Your task to perform on an android device: open chrome privacy settings Image 0: 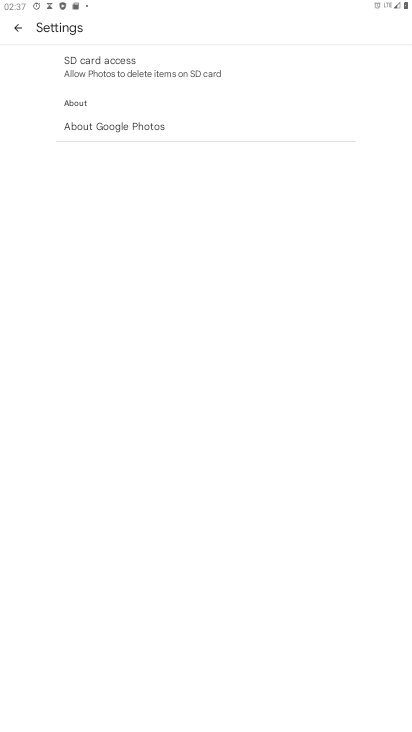
Step 0: press home button
Your task to perform on an android device: open chrome privacy settings Image 1: 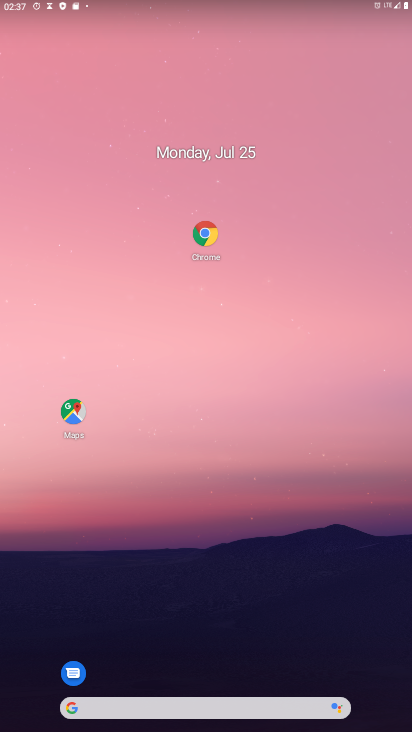
Step 1: drag from (291, 702) to (329, 215)
Your task to perform on an android device: open chrome privacy settings Image 2: 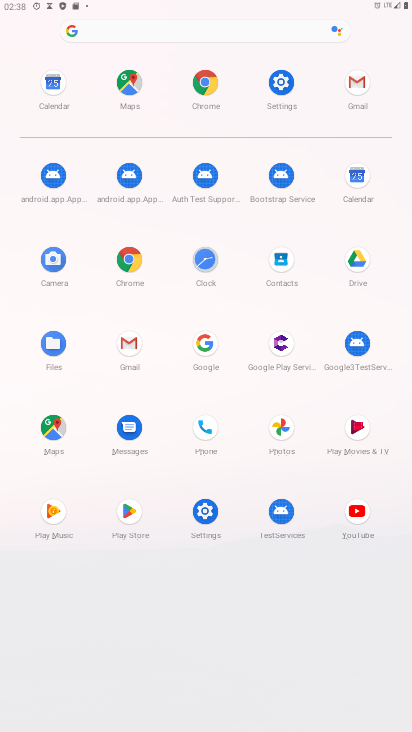
Step 2: click (127, 260)
Your task to perform on an android device: open chrome privacy settings Image 3: 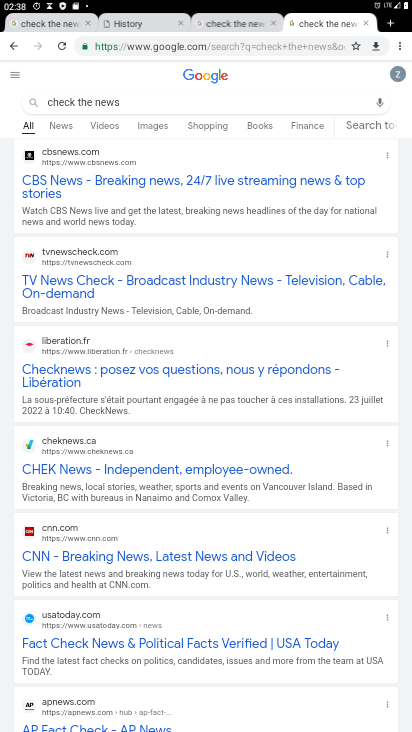
Step 3: drag from (402, 42) to (309, 277)
Your task to perform on an android device: open chrome privacy settings Image 4: 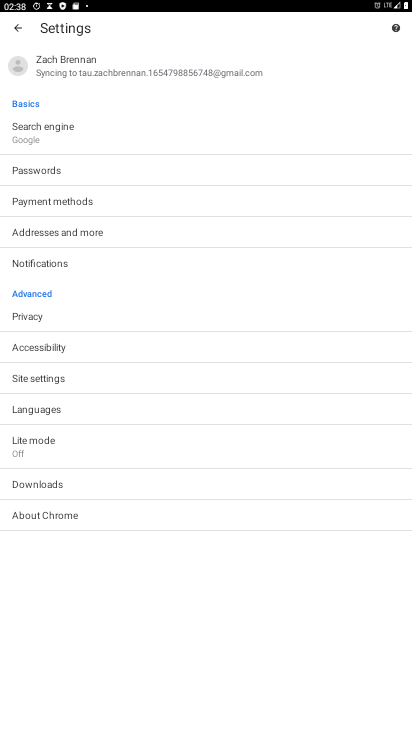
Step 4: click (63, 313)
Your task to perform on an android device: open chrome privacy settings Image 5: 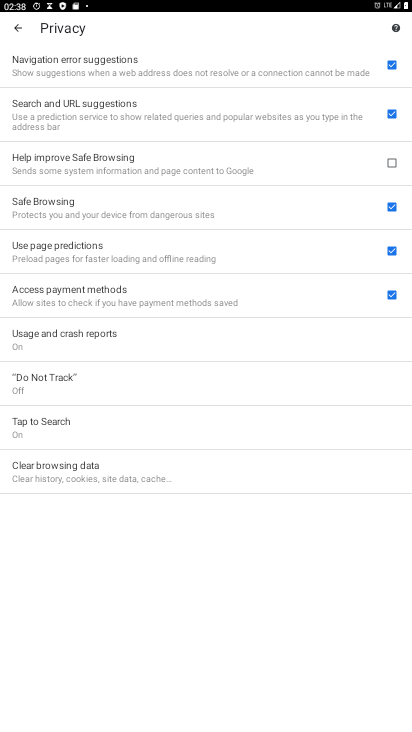
Step 5: task complete